Your task to perform on an android device: open a new tab in the chrome app Image 0: 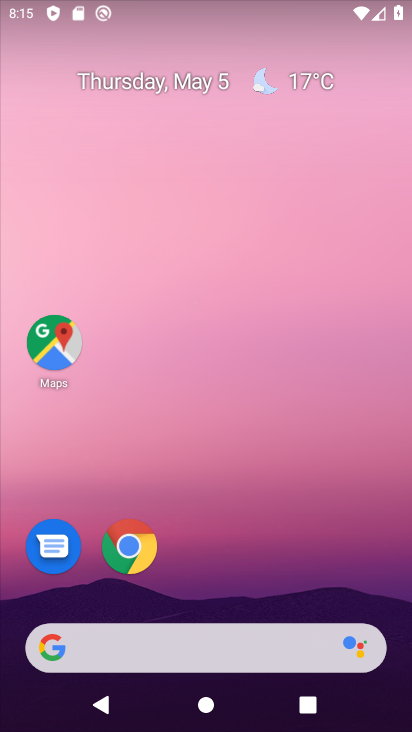
Step 0: drag from (176, 639) to (330, 140)
Your task to perform on an android device: open a new tab in the chrome app Image 1: 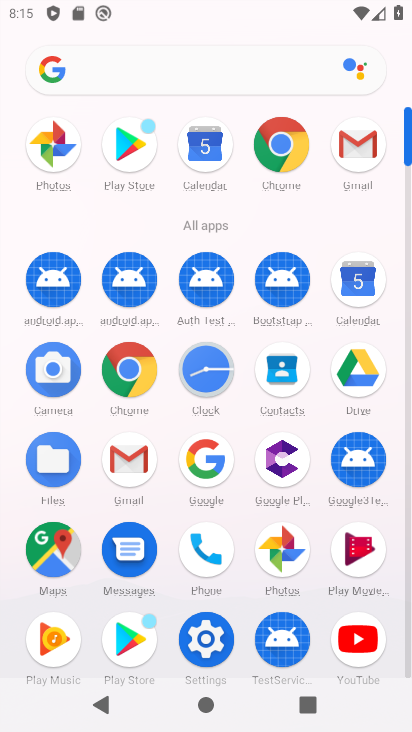
Step 1: click (288, 155)
Your task to perform on an android device: open a new tab in the chrome app Image 2: 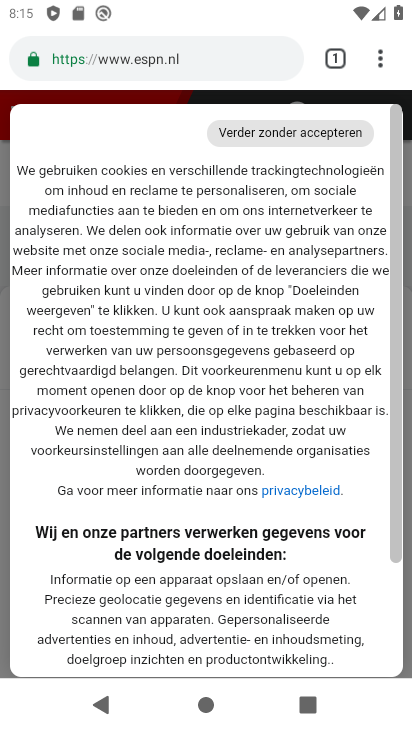
Step 2: click (377, 66)
Your task to perform on an android device: open a new tab in the chrome app Image 3: 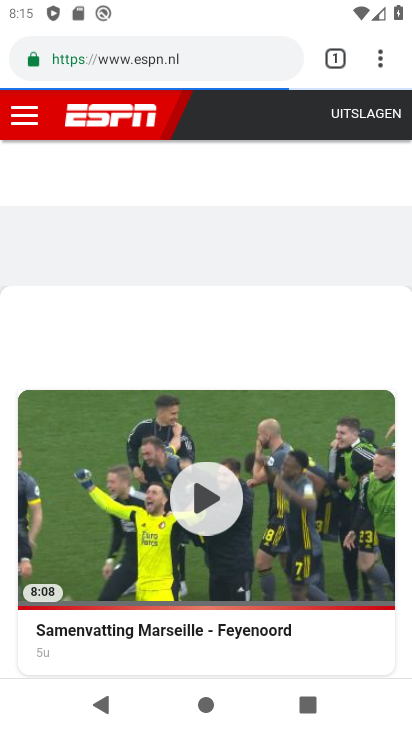
Step 3: click (376, 74)
Your task to perform on an android device: open a new tab in the chrome app Image 4: 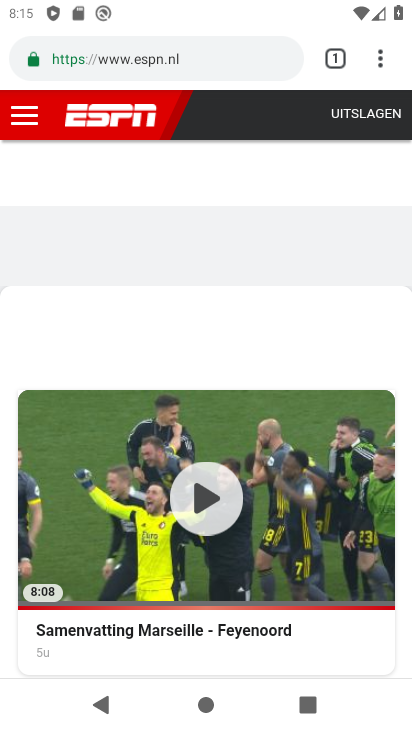
Step 4: click (371, 66)
Your task to perform on an android device: open a new tab in the chrome app Image 5: 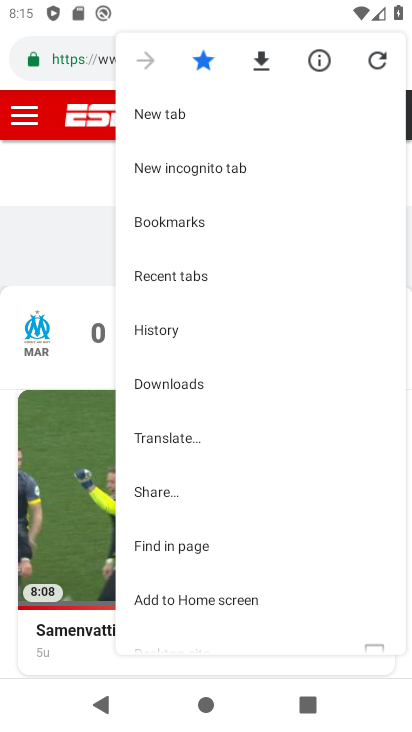
Step 5: click (169, 112)
Your task to perform on an android device: open a new tab in the chrome app Image 6: 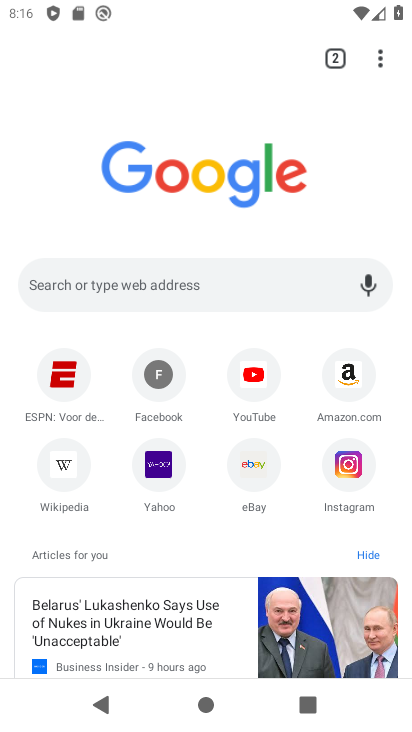
Step 6: task complete